Your task to perform on an android device: change the clock display to analog Image 0: 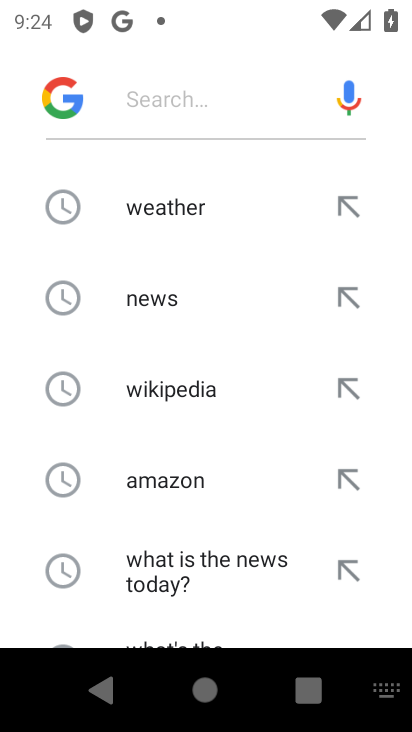
Step 0: press home button
Your task to perform on an android device: change the clock display to analog Image 1: 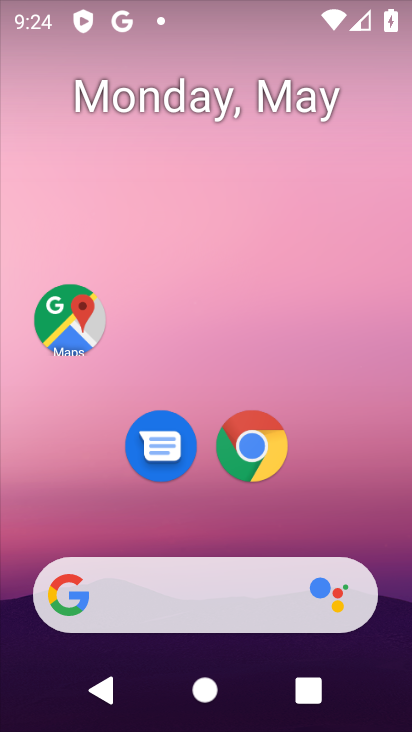
Step 1: drag from (79, 543) to (193, 146)
Your task to perform on an android device: change the clock display to analog Image 2: 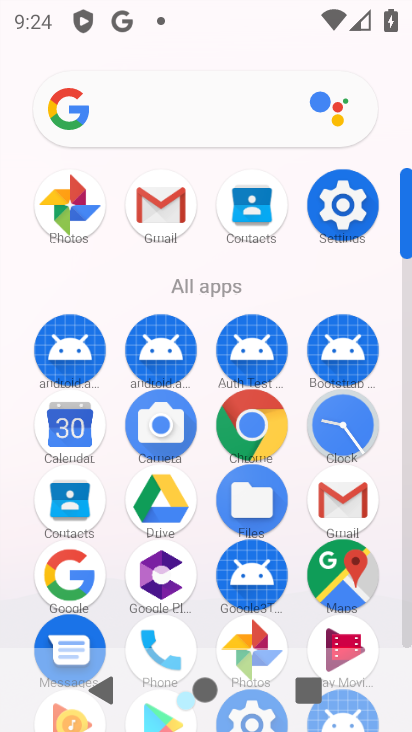
Step 2: click (366, 437)
Your task to perform on an android device: change the clock display to analog Image 3: 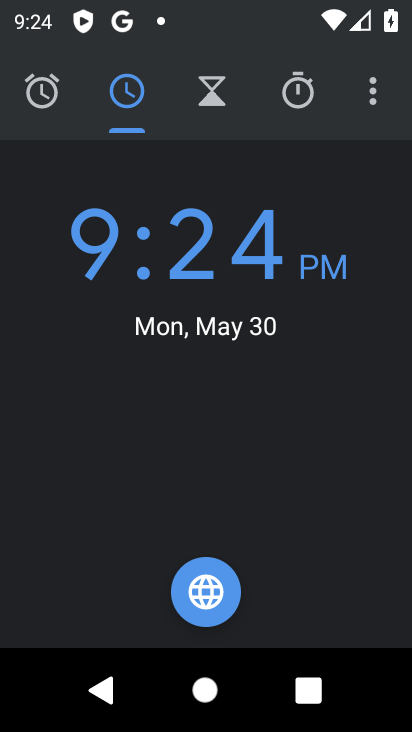
Step 3: click (382, 104)
Your task to perform on an android device: change the clock display to analog Image 4: 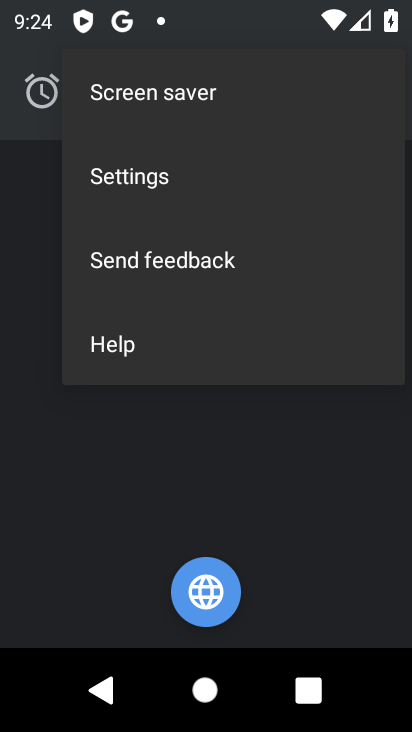
Step 4: click (274, 175)
Your task to perform on an android device: change the clock display to analog Image 5: 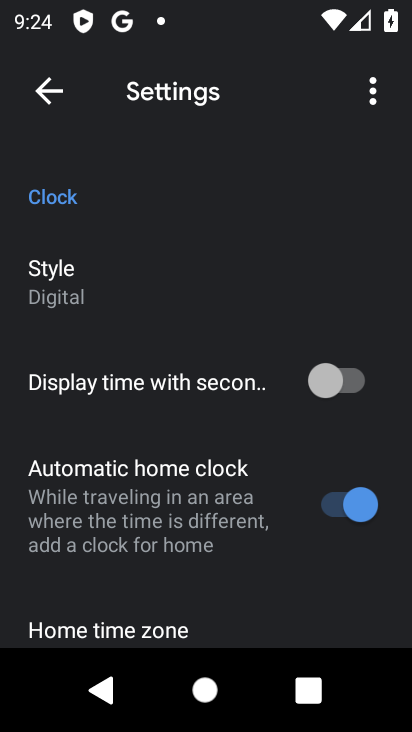
Step 5: click (200, 295)
Your task to perform on an android device: change the clock display to analog Image 6: 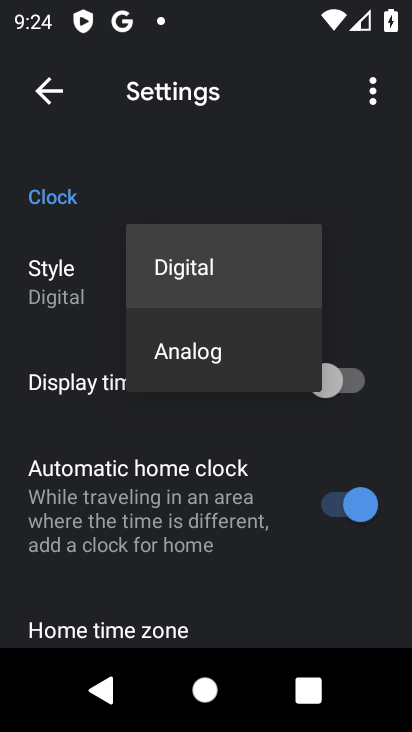
Step 6: click (211, 348)
Your task to perform on an android device: change the clock display to analog Image 7: 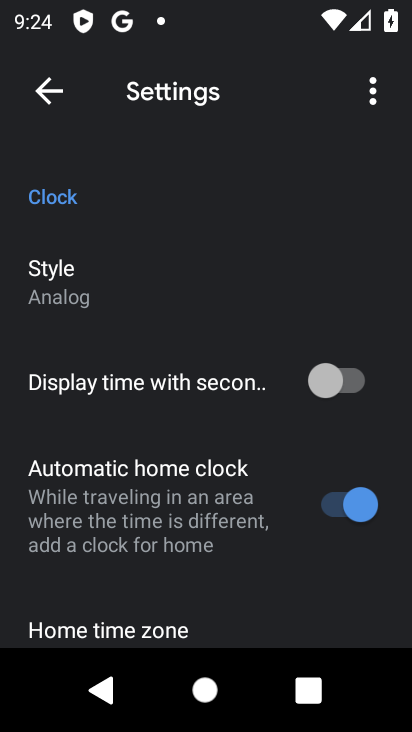
Step 7: task complete